Your task to perform on an android device: Show me the alarms in the clock app Image 0: 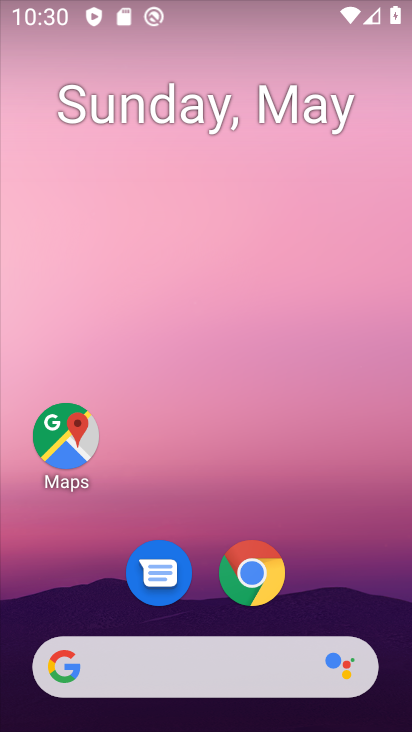
Step 0: drag from (312, 566) to (213, 197)
Your task to perform on an android device: Show me the alarms in the clock app Image 1: 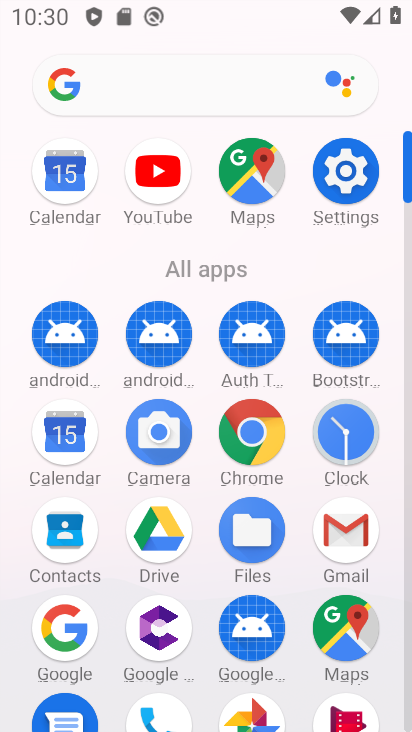
Step 1: click (355, 412)
Your task to perform on an android device: Show me the alarms in the clock app Image 2: 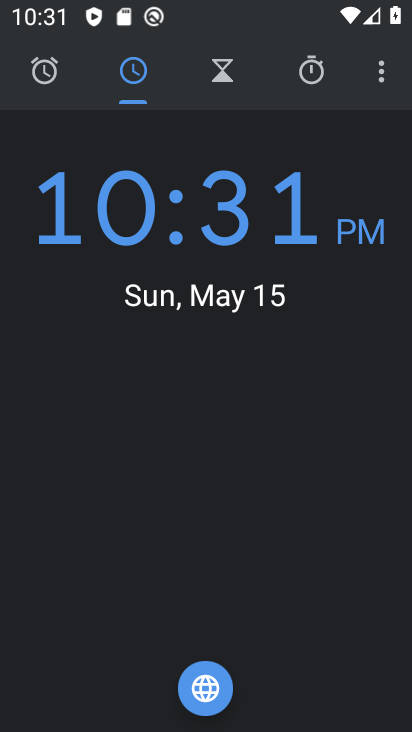
Step 2: click (58, 57)
Your task to perform on an android device: Show me the alarms in the clock app Image 3: 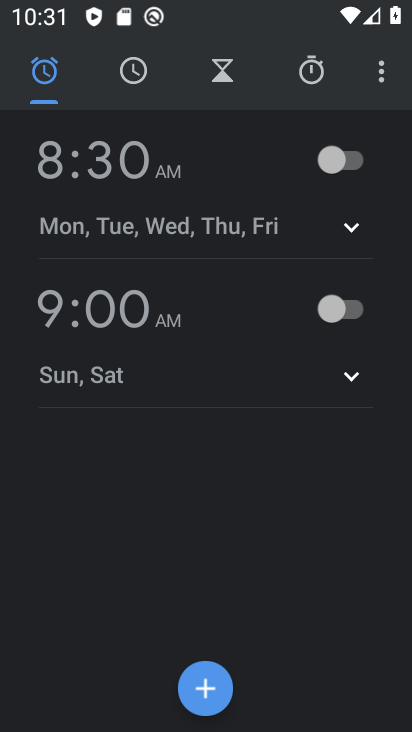
Step 3: task complete